Your task to perform on an android device: check battery use Image 0: 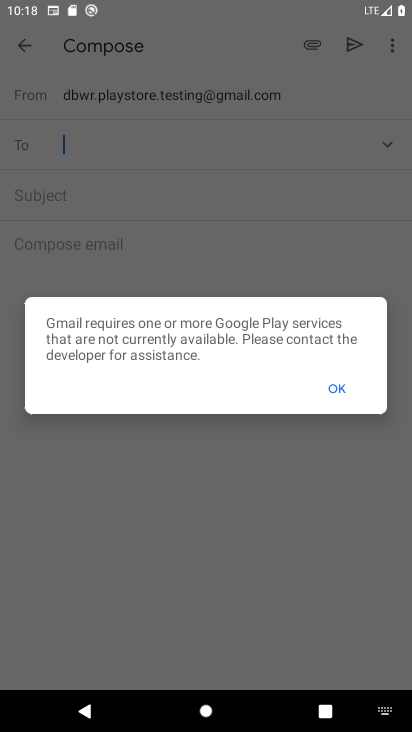
Step 0: press home button
Your task to perform on an android device: check battery use Image 1: 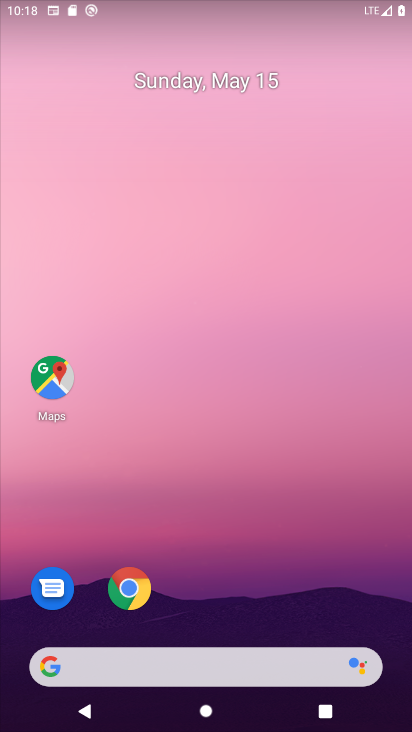
Step 1: drag from (247, 605) to (208, 167)
Your task to perform on an android device: check battery use Image 2: 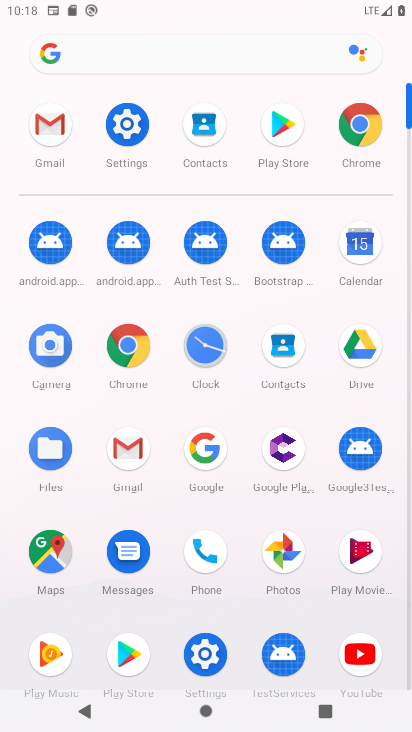
Step 2: click (121, 124)
Your task to perform on an android device: check battery use Image 3: 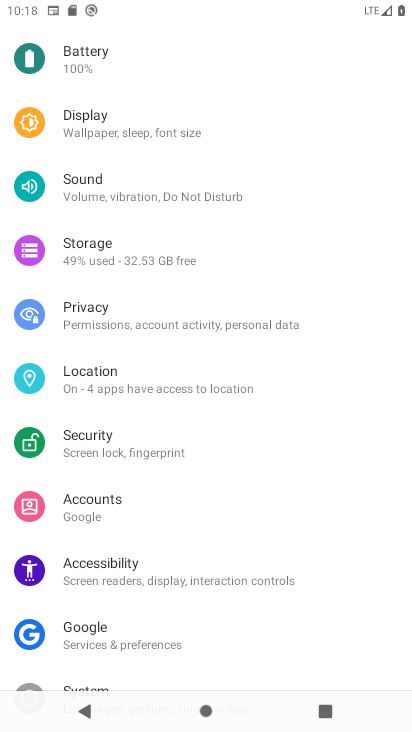
Step 3: click (98, 67)
Your task to perform on an android device: check battery use Image 4: 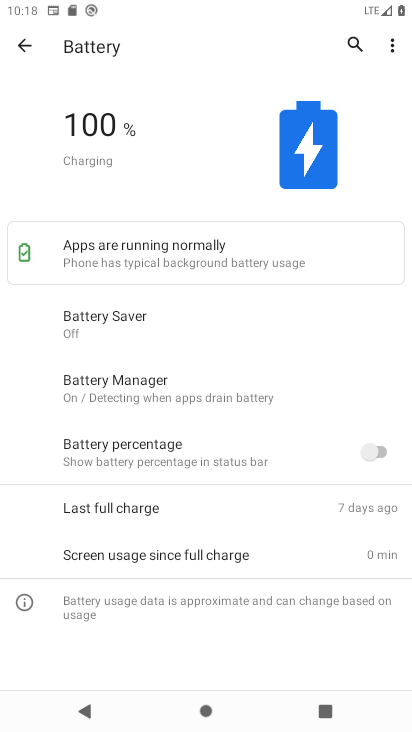
Step 4: click (397, 49)
Your task to perform on an android device: check battery use Image 5: 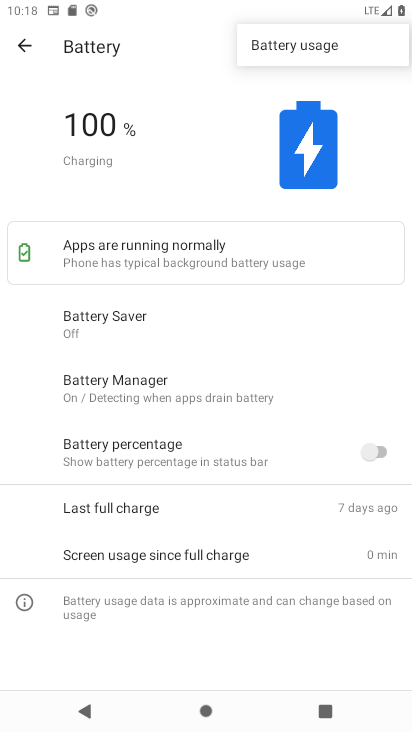
Step 5: click (323, 43)
Your task to perform on an android device: check battery use Image 6: 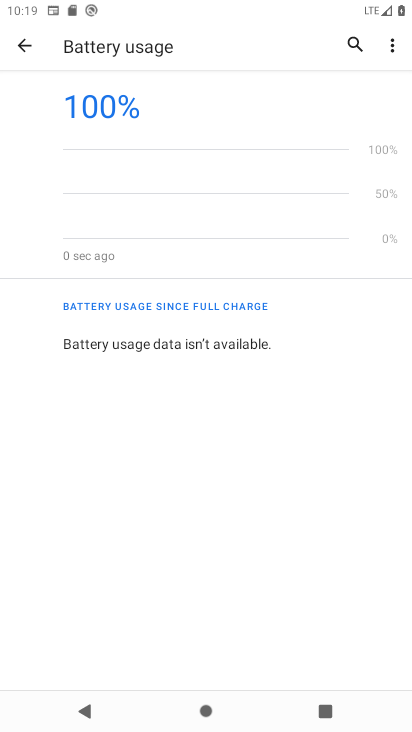
Step 6: task complete